Your task to perform on an android device: Open the stopwatch Image 0: 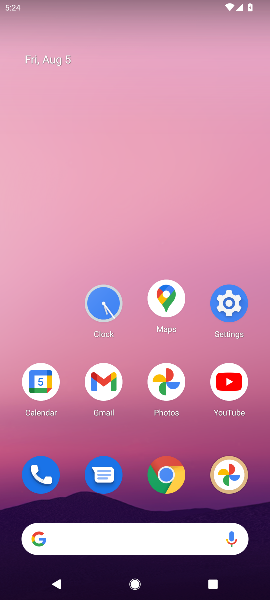
Step 0: click (97, 313)
Your task to perform on an android device: Open the stopwatch Image 1: 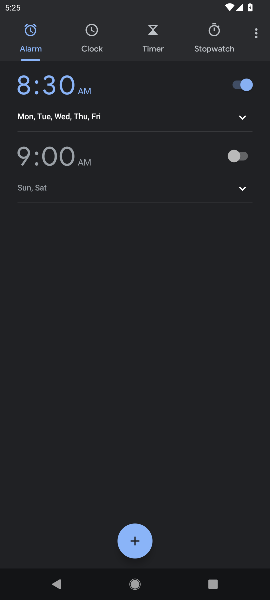
Step 1: click (210, 33)
Your task to perform on an android device: Open the stopwatch Image 2: 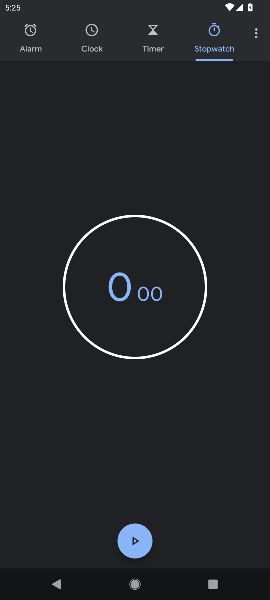
Step 2: task complete